Your task to perform on an android device: turn off notifications settings in the gmail app Image 0: 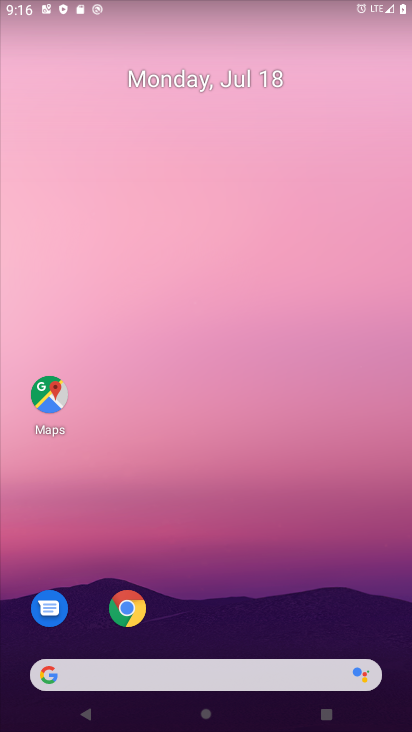
Step 0: drag from (239, 723) to (223, 306)
Your task to perform on an android device: turn off notifications settings in the gmail app Image 1: 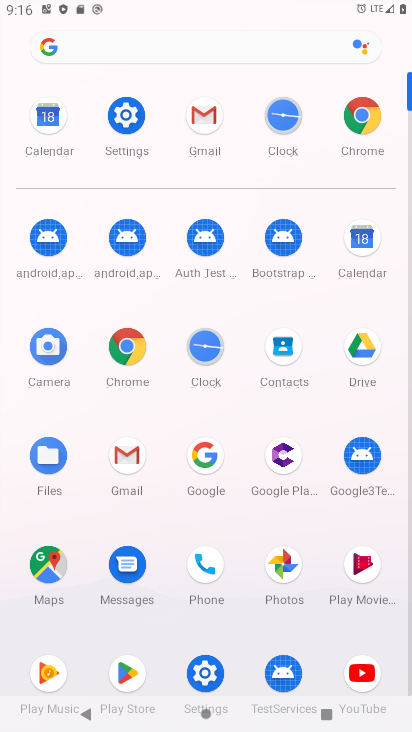
Step 1: click (127, 457)
Your task to perform on an android device: turn off notifications settings in the gmail app Image 2: 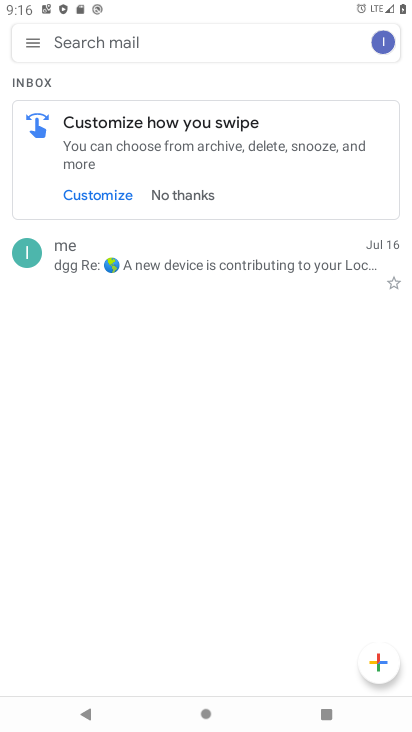
Step 2: click (31, 47)
Your task to perform on an android device: turn off notifications settings in the gmail app Image 3: 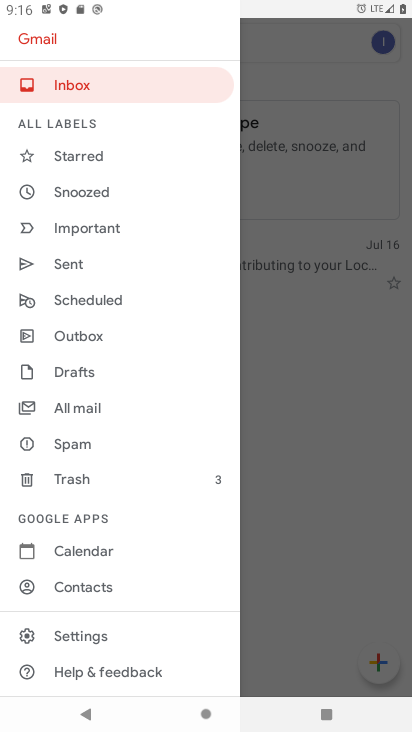
Step 3: click (77, 634)
Your task to perform on an android device: turn off notifications settings in the gmail app Image 4: 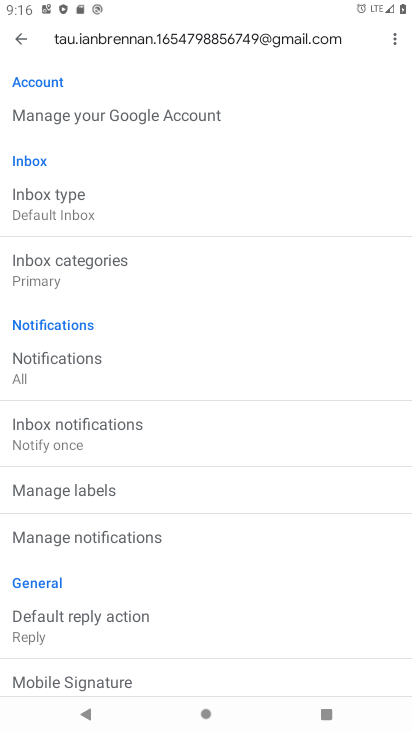
Step 4: click (64, 355)
Your task to perform on an android device: turn off notifications settings in the gmail app Image 5: 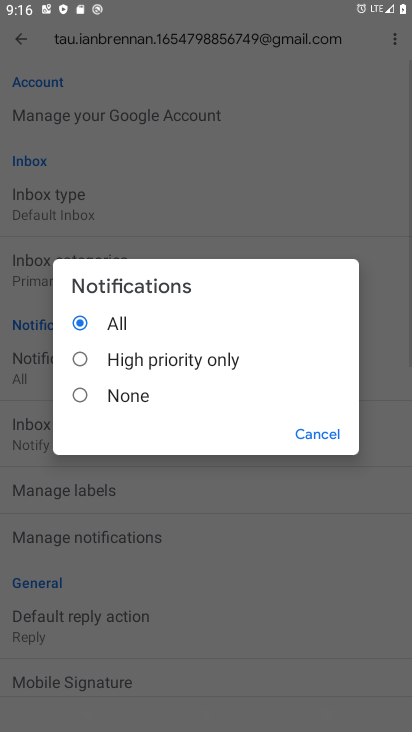
Step 5: click (78, 399)
Your task to perform on an android device: turn off notifications settings in the gmail app Image 6: 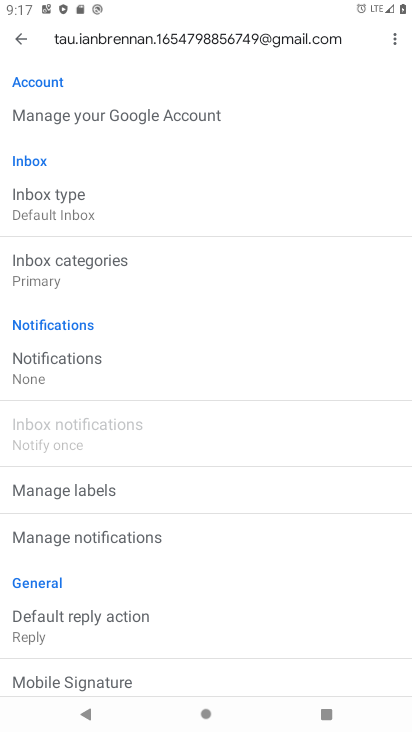
Step 6: task complete